Your task to perform on an android device: When is my next appointment? Image 0: 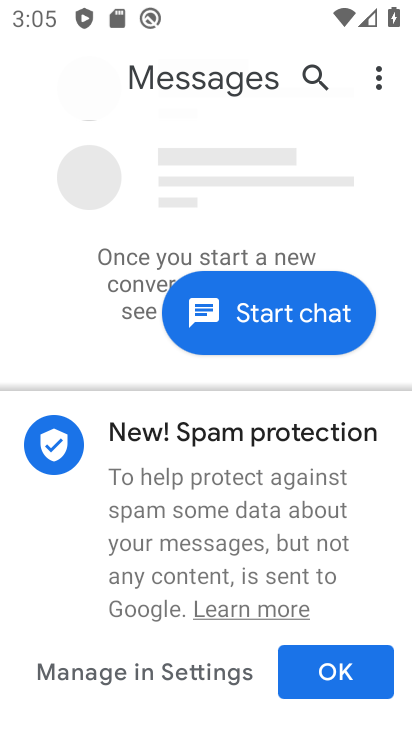
Step 0: press home button
Your task to perform on an android device: When is my next appointment? Image 1: 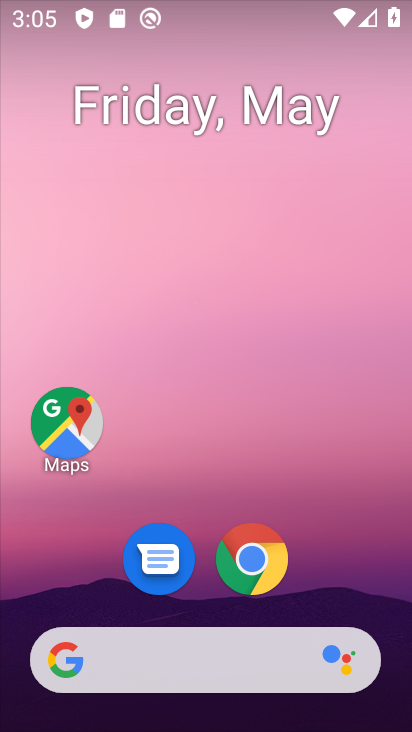
Step 1: drag from (318, 619) to (193, 10)
Your task to perform on an android device: When is my next appointment? Image 2: 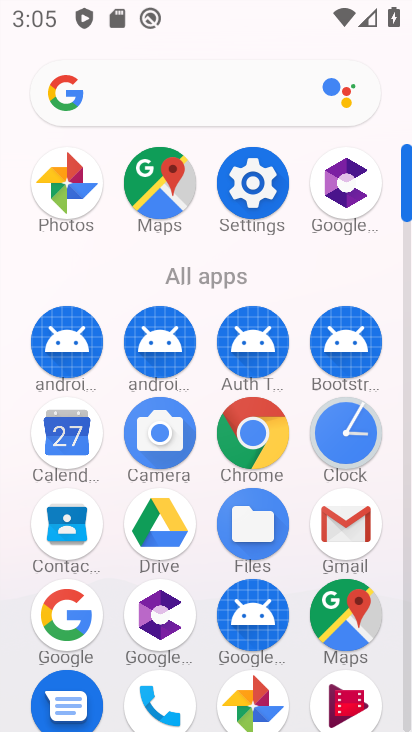
Step 2: click (150, 154)
Your task to perform on an android device: When is my next appointment? Image 3: 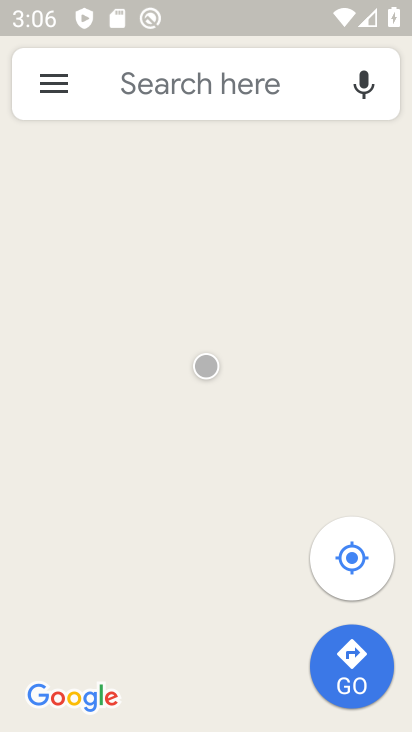
Step 3: press home button
Your task to perform on an android device: When is my next appointment? Image 4: 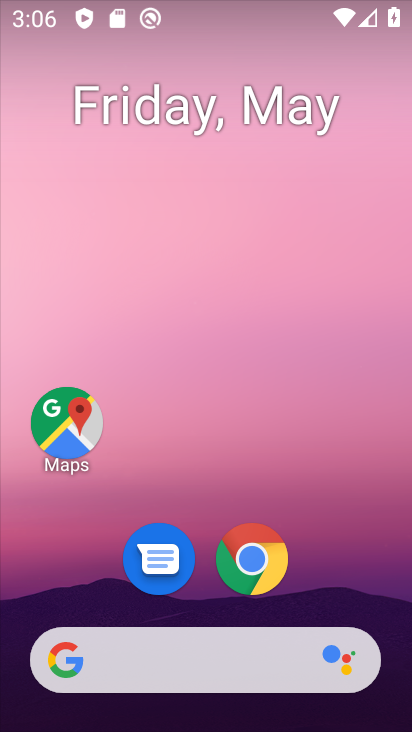
Step 4: drag from (320, 570) to (172, 42)
Your task to perform on an android device: When is my next appointment? Image 5: 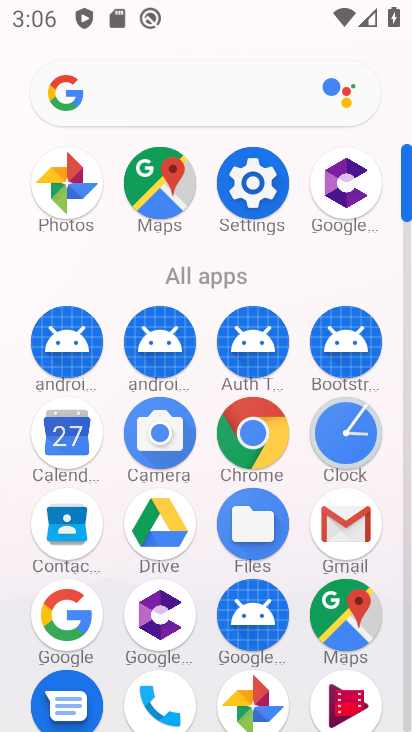
Step 5: click (59, 454)
Your task to perform on an android device: When is my next appointment? Image 6: 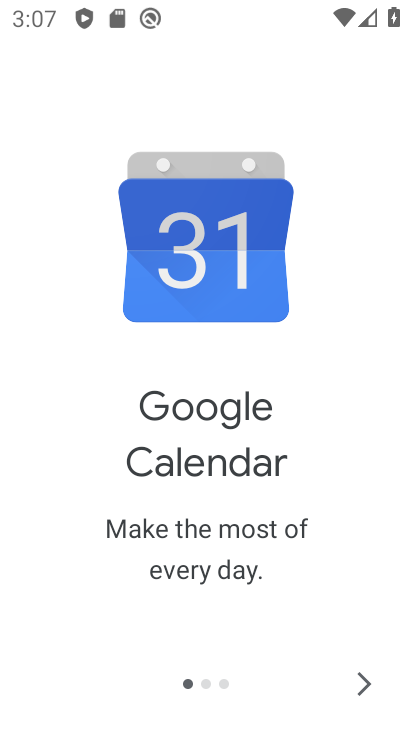
Step 6: click (368, 678)
Your task to perform on an android device: When is my next appointment? Image 7: 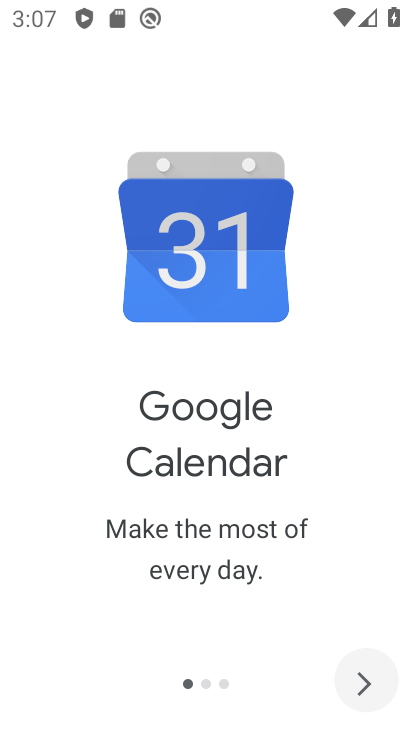
Step 7: click (368, 678)
Your task to perform on an android device: When is my next appointment? Image 8: 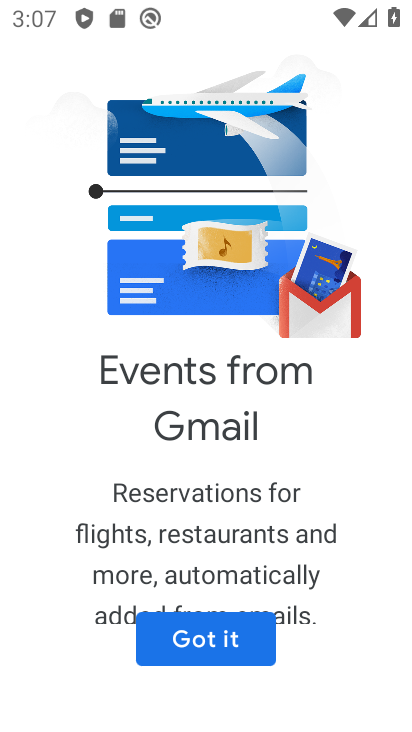
Step 8: click (209, 630)
Your task to perform on an android device: When is my next appointment? Image 9: 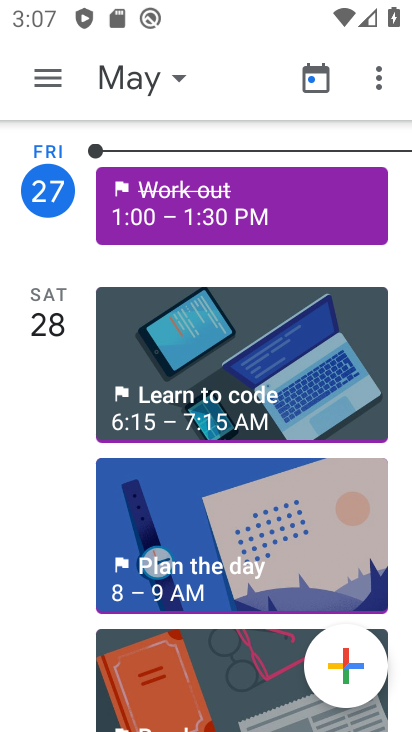
Step 9: click (43, 68)
Your task to perform on an android device: When is my next appointment? Image 10: 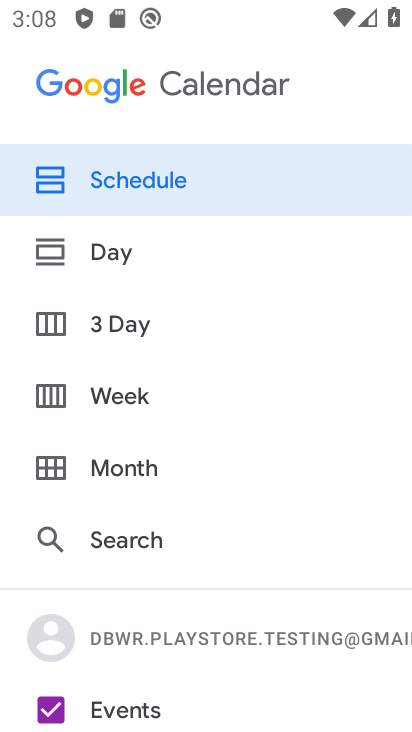
Step 10: click (138, 177)
Your task to perform on an android device: When is my next appointment? Image 11: 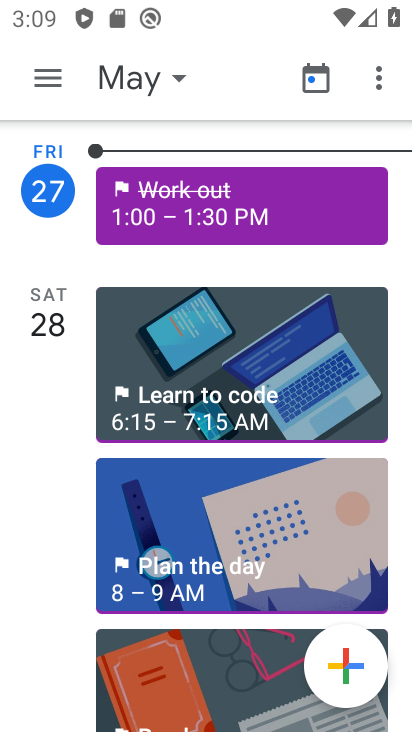
Step 11: task complete